Your task to perform on an android device: Open network settings Image 0: 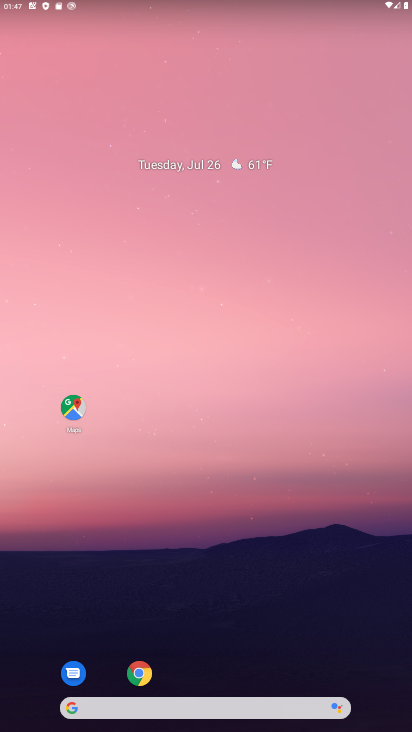
Step 0: drag from (169, 697) to (172, 184)
Your task to perform on an android device: Open network settings Image 1: 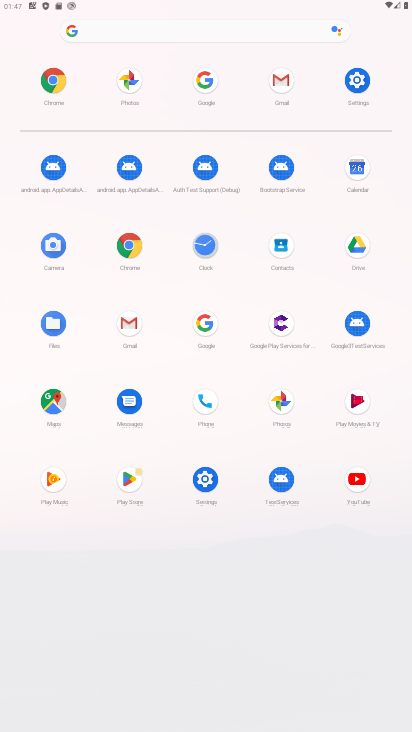
Step 1: click (358, 79)
Your task to perform on an android device: Open network settings Image 2: 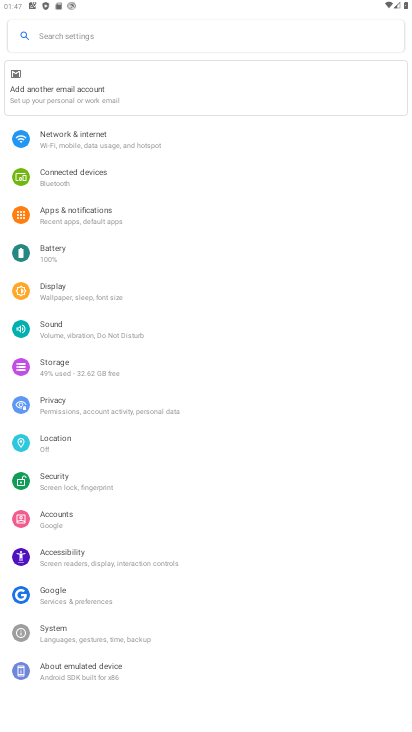
Step 2: click (71, 127)
Your task to perform on an android device: Open network settings Image 3: 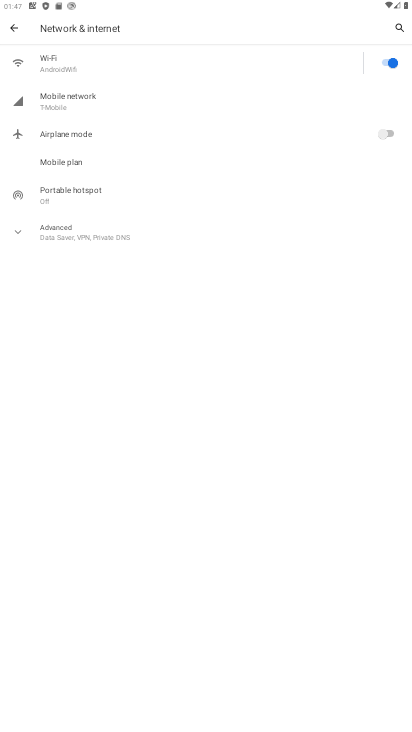
Step 3: click (54, 94)
Your task to perform on an android device: Open network settings Image 4: 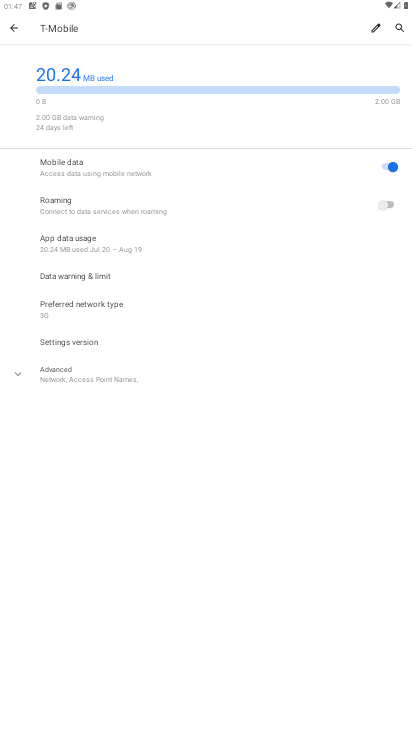
Step 4: task complete